Your task to perform on an android device: Open Google Chrome and click the shortcut for Amazon.com Image 0: 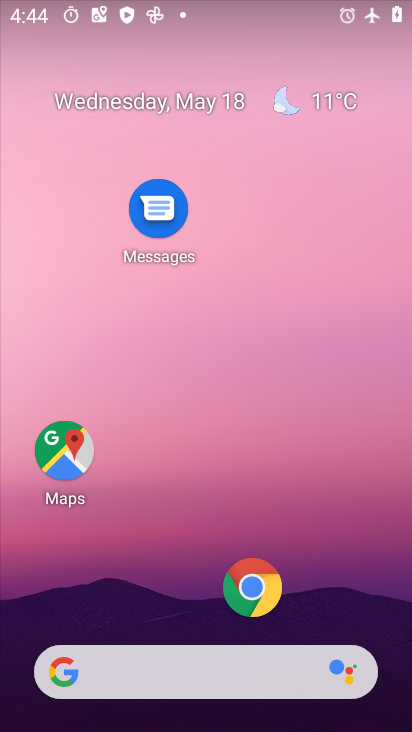
Step 0: click (239, 570)
Your task to perform on an android device: Open Google Chrome and click the shortcut for Amazon.com Image 1: 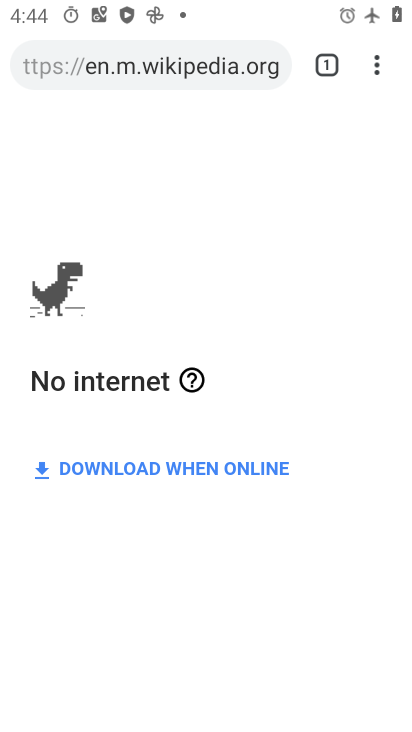
Step 1: task complete